Your task to perform on an android device: change timer sound Image 0: 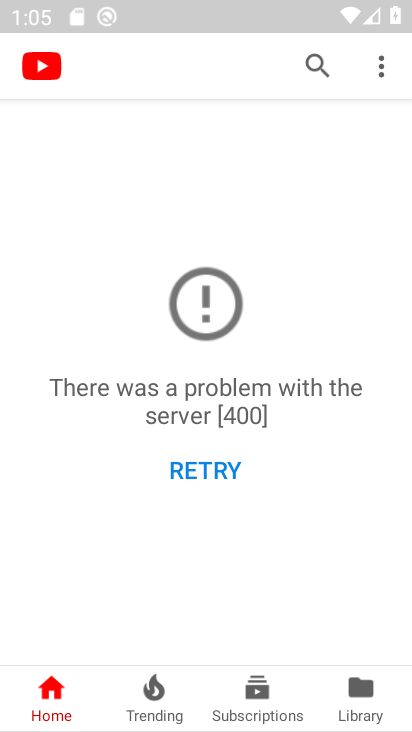
Step 0: press home button
Your task to perform on an android device: change timer sound Image 1: 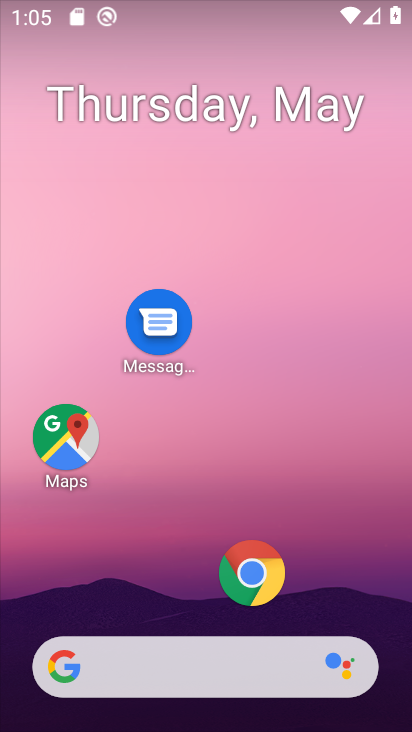
Step 1: drag from (183, 632) to (308, 127)
Your task to perform on an android device: change timer sound Image 2: 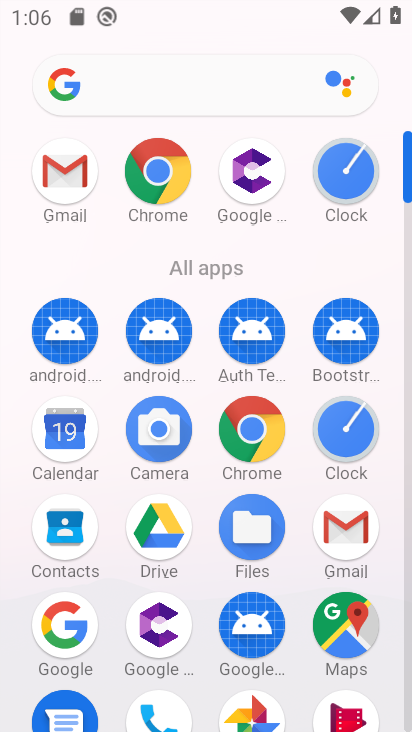
Step 2: drag from (216, 635) to (258, 138)
Your task to perform on an android device: change timer sound Image 3: 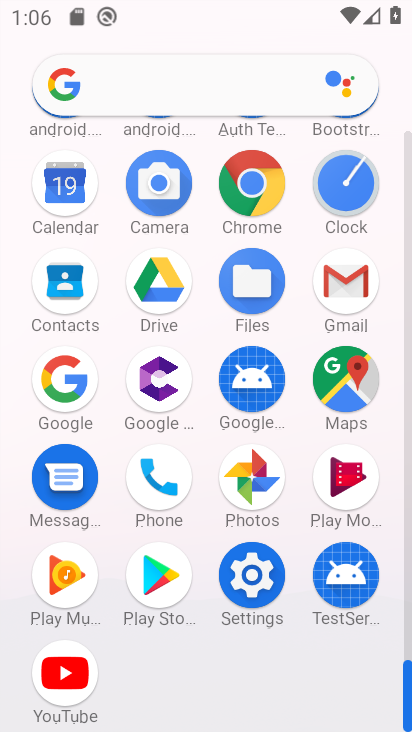
Step 3: click (242, 580)
Your task to perform on an android device: change timer sound Image 4: 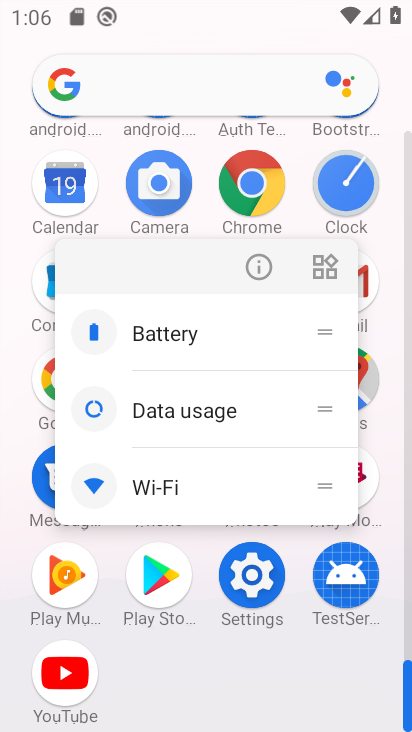
Step 4: click (361, 180)
Your task to perform on an android device: change timer sound Image 5: 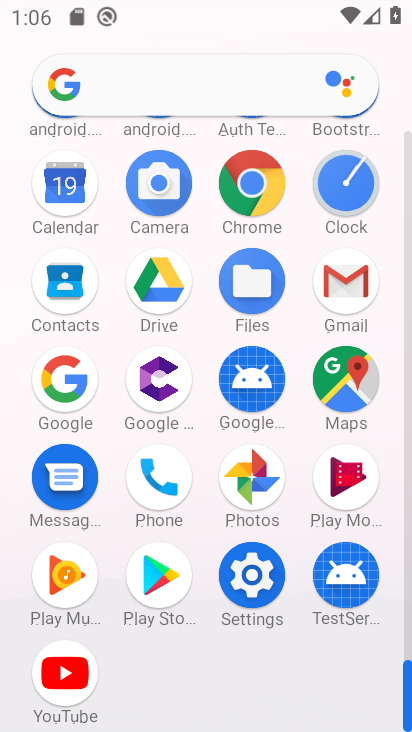
Step 5: click (350, 173)
Your task to perform on an android device: change timer sound Image 6: 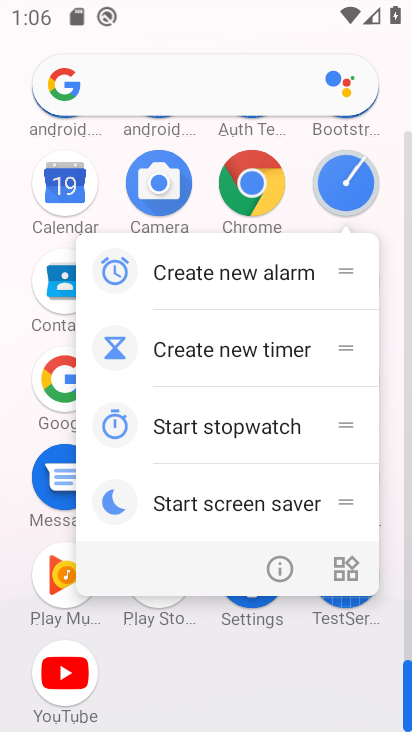
Step 6: click (276, 569)
Your task to perform on an android device: change timer sound Image 7: 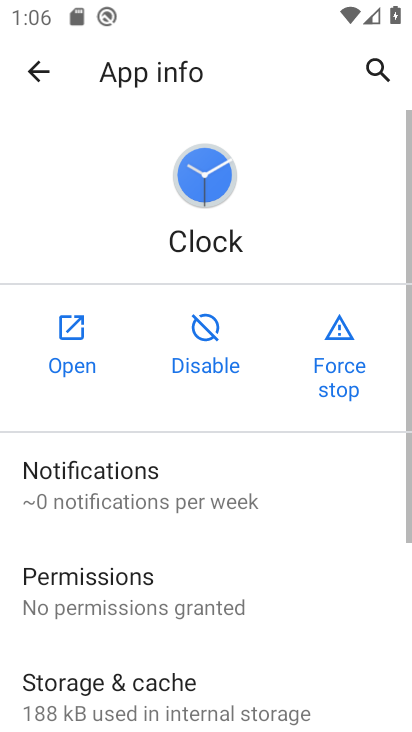
Step 7: click (73, 330)
Your task to perform on an android device: change timer sound Image 8: 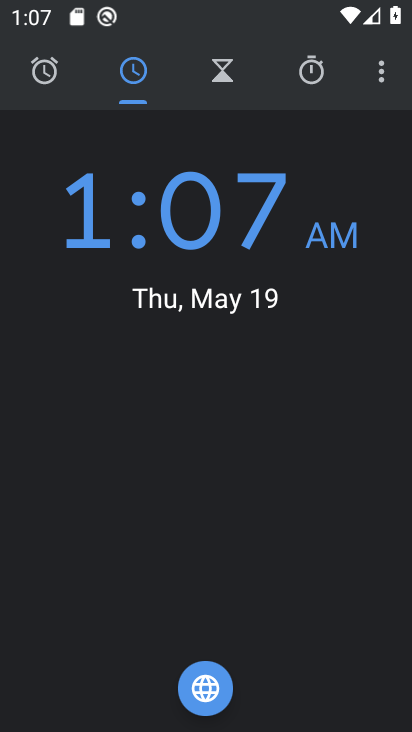
Step 8: click (394, 72)
Your task to perform on an android device: change timer sound Image 9: 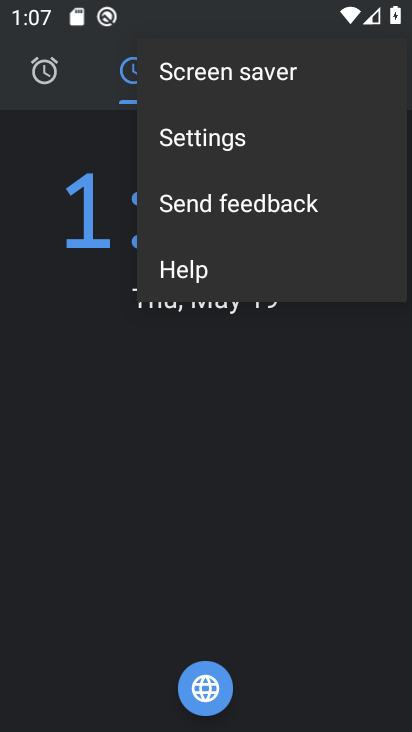
Step 9: click (241, 147)
Your task to perform on an android device: change timer sound Image 10: 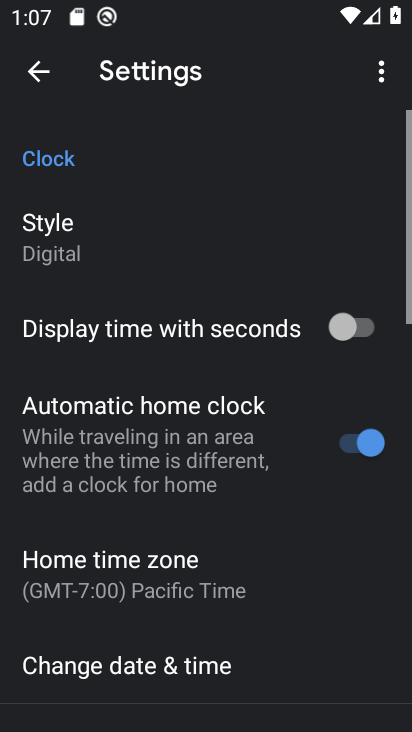
Step 10: drag from (231, 532) to (317, 72)
Your task to perform on an android device: change timer sound Image 11: 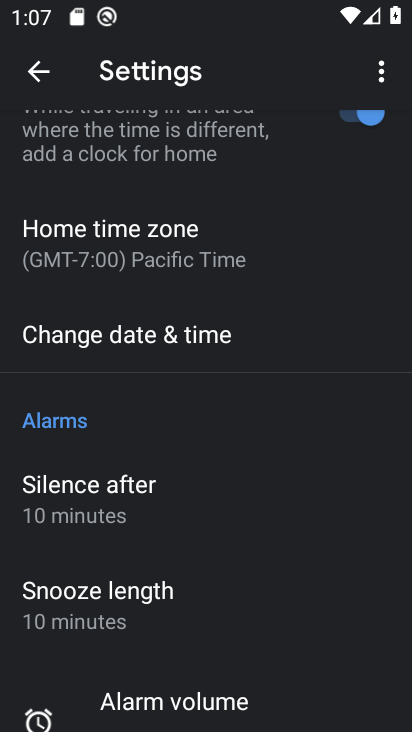
Step 11: drag from (201, 582) to (340, 29)
Your task to perform on an android device: change timer sound Image 12: 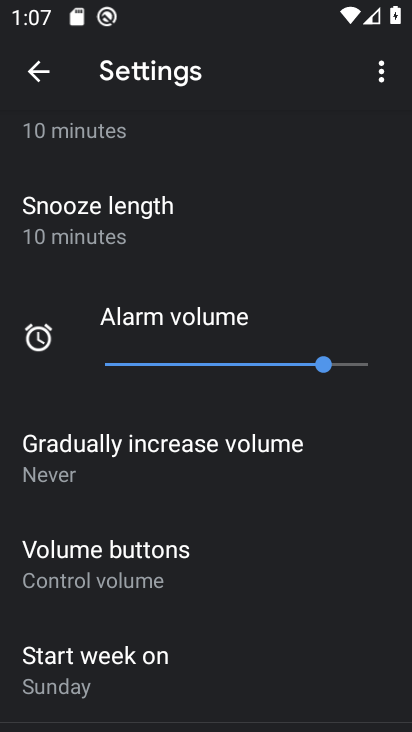
Step 12: drag from (171, 545) to (260, 6)
Your task to perform on an android device: change timer sound Image 13: 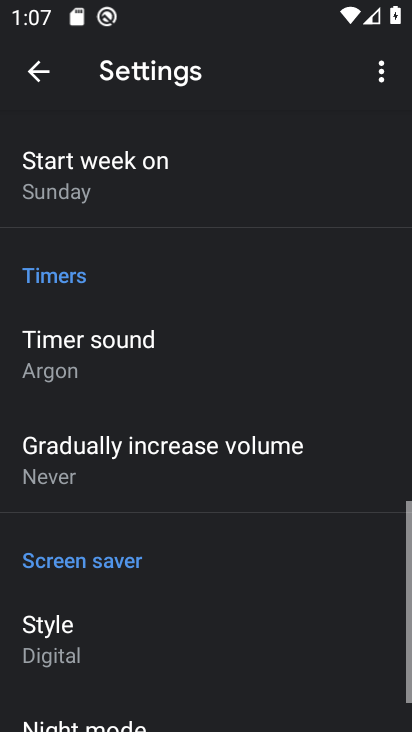
Step 13: click (137, 366)
Your task to perform on an android device: change timer sound Image 14: 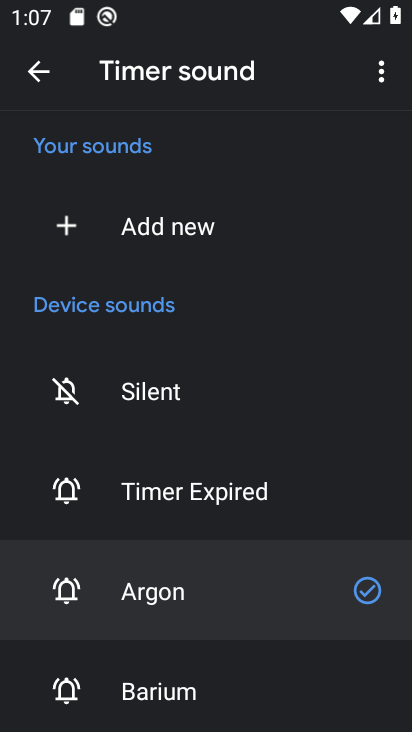
Step 14: click (198, 680)
Your task to perform on an android device: change timer sound Image 15: 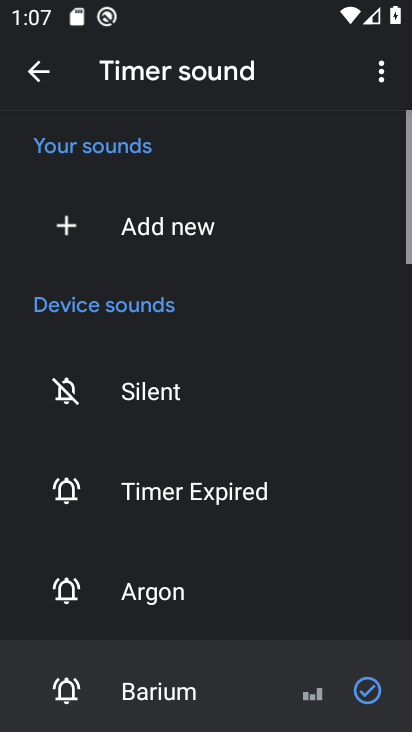
Step 15: task complete